Your task to perform on an android device: Open battery settings Image 0: 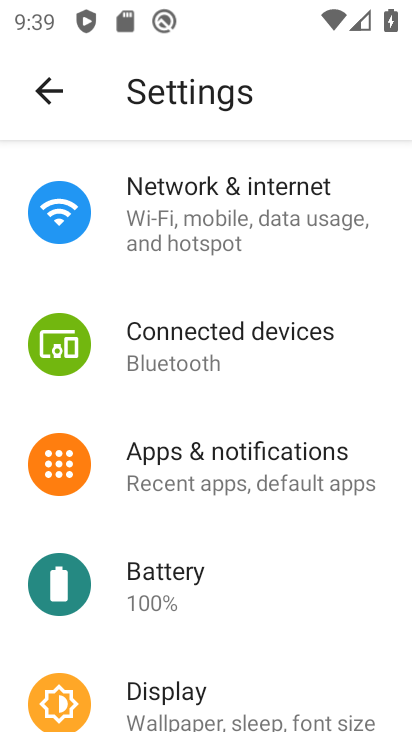
Step 0: click (179, 588)
Your task to perform on an android device: Open battery settings Image 1: 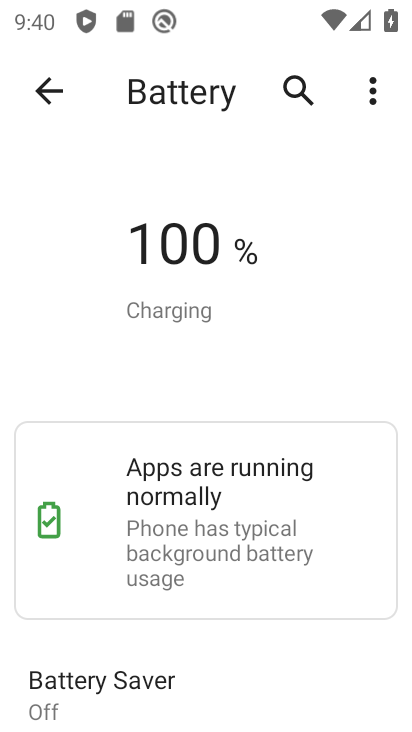
Step 1: task complete